Your task to perform on an android device: Search for seafood restaurants on Google Maps Image 0: 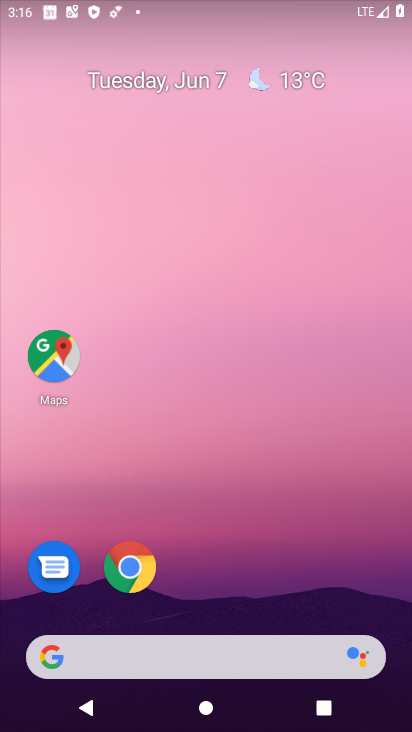
Step 0: click (41, 362)
Your task to perform on an android device: Search for seafood restaurants on Google Maps Image 1: 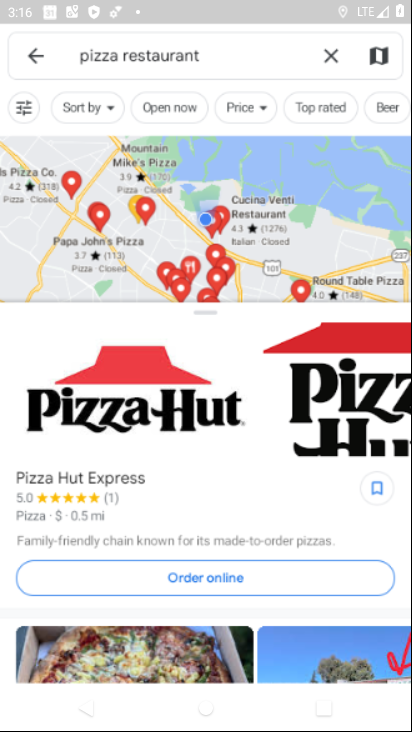
Step 1: click (331, 49)
Your task to perform on an android device: Search for seafood restaurants on Google Maps Image 2: 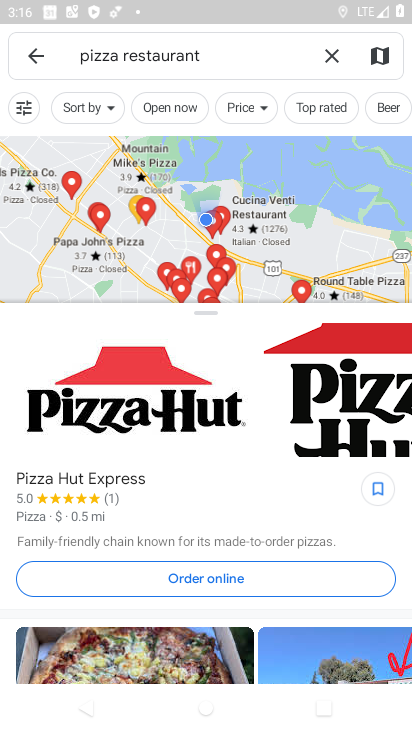
Step 2: click (333, 49)
Your task to perform on an android device: Search for seafood restaurants on Google Maps Image 3: 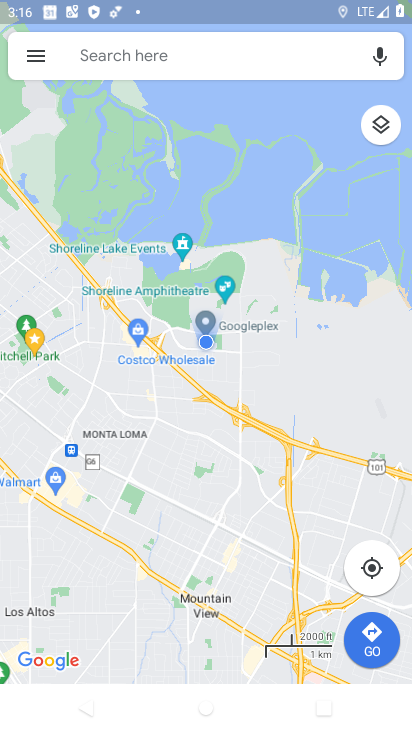
Step 3: click (131, 60)
Your task to perform on an android device: Search for seafood restaurants on Google Maps Image 4: 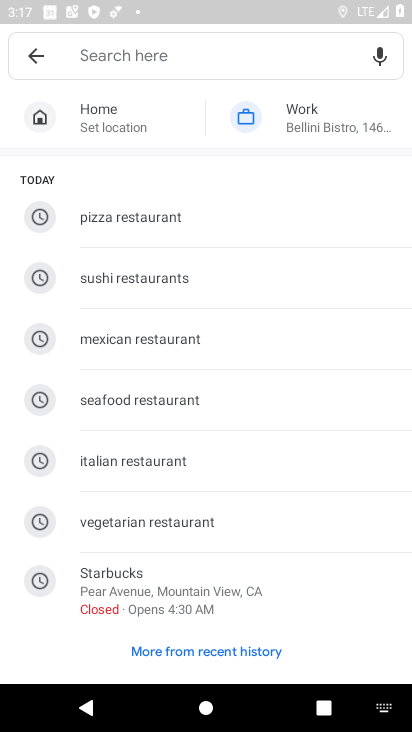
Step 4: click (115, 390)
Your task to perform on an android device: Search for seafood restaurants on Google Maps Image 5: 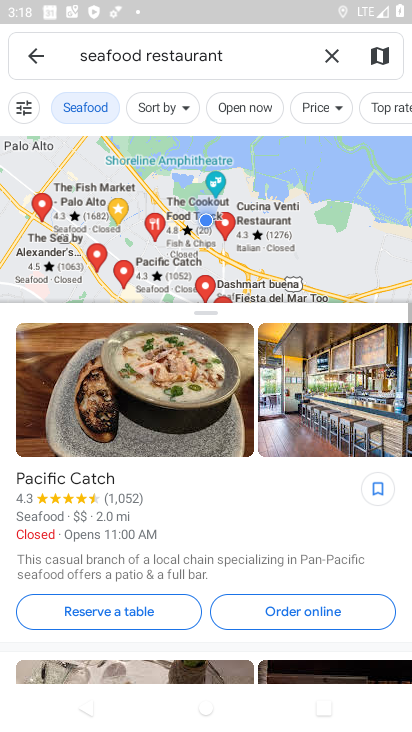
Step 5: task complete